Your task to perform on an android device: open device folders in google photos Image 0: 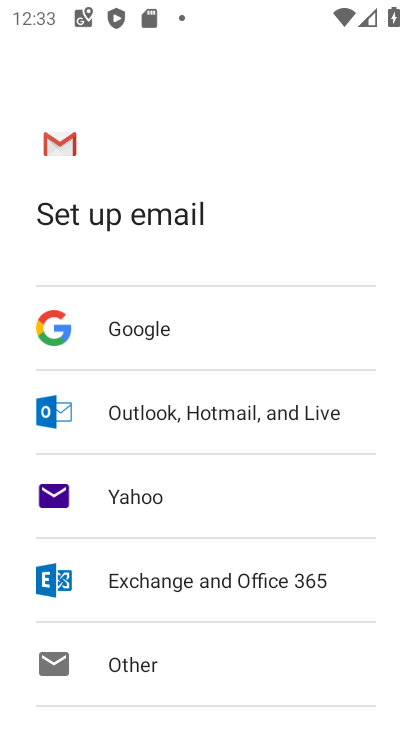
Step 0: press home button
Your task to perform on an android device: open device folders in google photos Image 1: 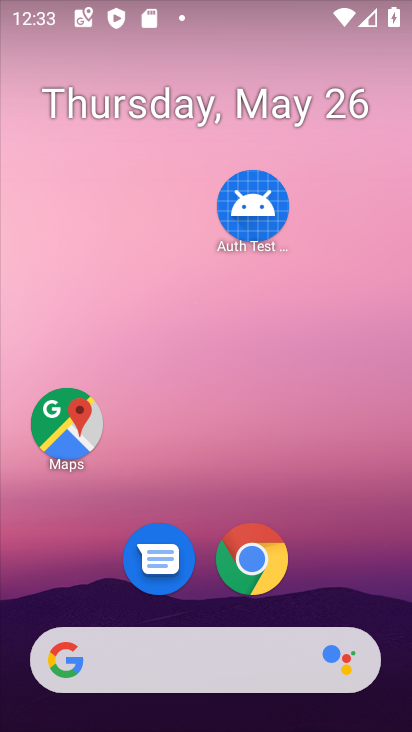
Step 1: drag from (352, 525) to (340, 75)
Your task to perform on an android device: open device folders in google photos Image 2: 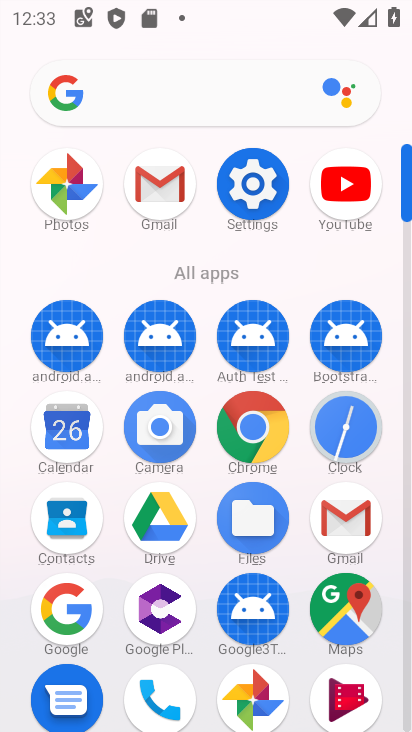
Step 2: click (273, 682)
Your task to perform on an android device: open device folders in google photos Image 3: 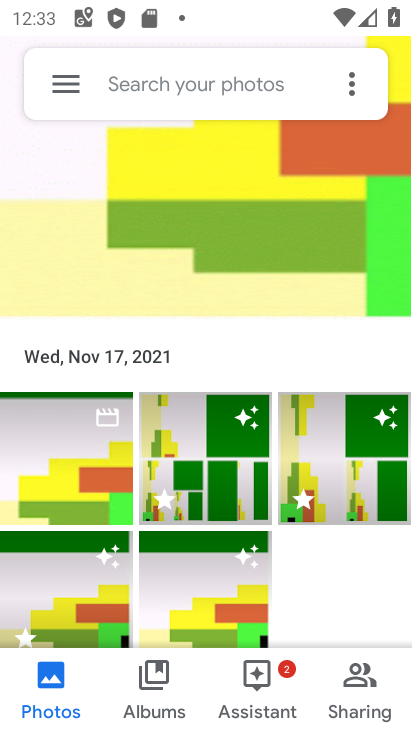
Step 3: click (72, 104)
Your task to perform on an android device: open device folders in google photos Image 4: 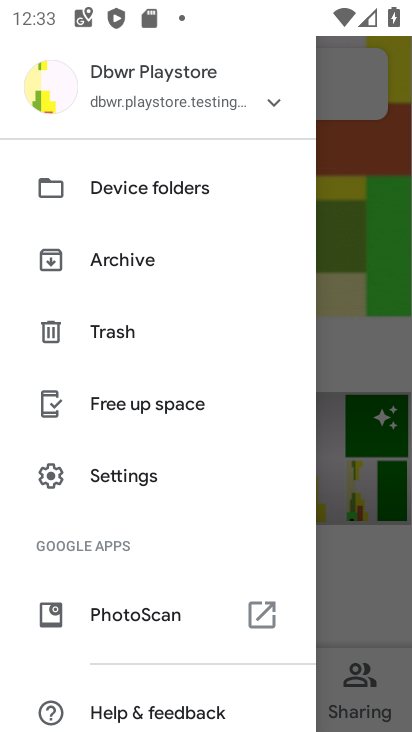
Step 4: click (148, 187)
Your task to perform on an android device: open device folders in google photos Image 5: 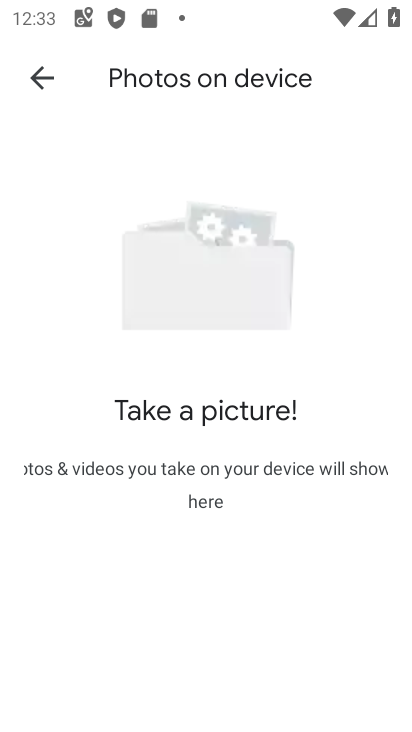
Step 5: task complete